Your task to perform on an android device: Open Google Image 0: 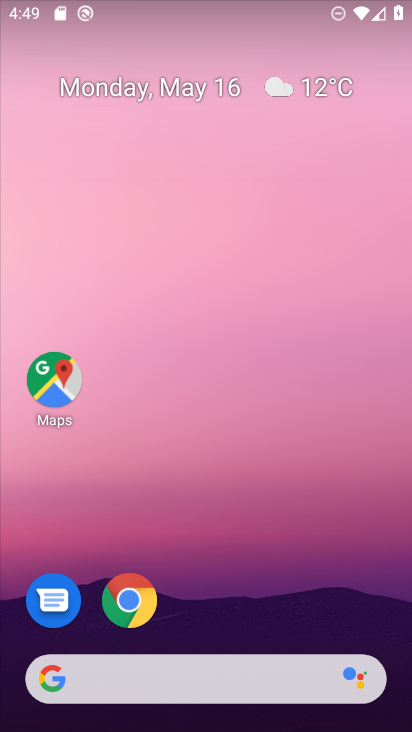
Step 0: drag from (319, 594) to (275, 63)
Your task to perform on an android device: Open Google Image 1: 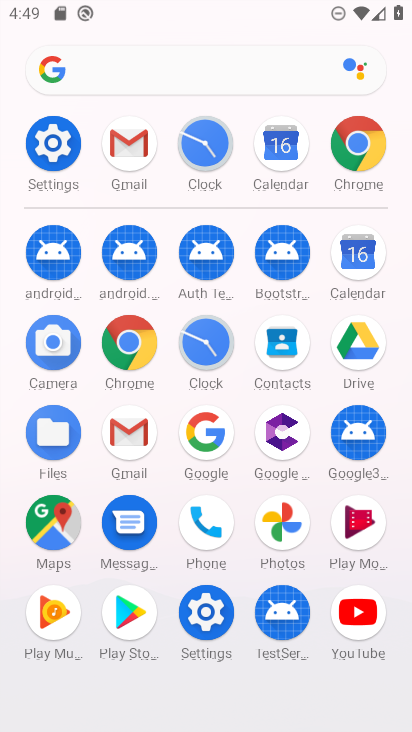
Step 1: click (212, 421)
Your task to perform on an android device: Open Google Image 2: 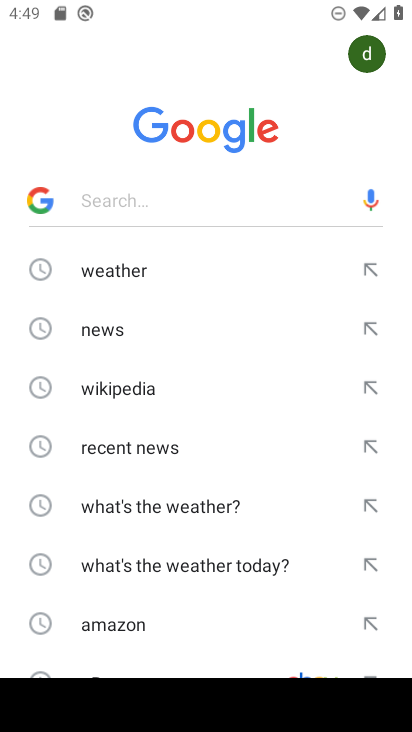
Step 2: task complete